Your task to perform on an android device: turn off wifi Image 0: 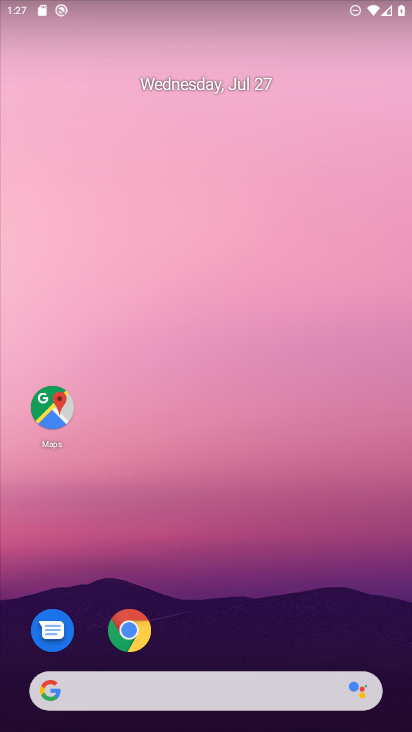
Step 0: drag from (306, 7) to (210, 382)
Your task to perform on an android device: turn off wifi Image 1: 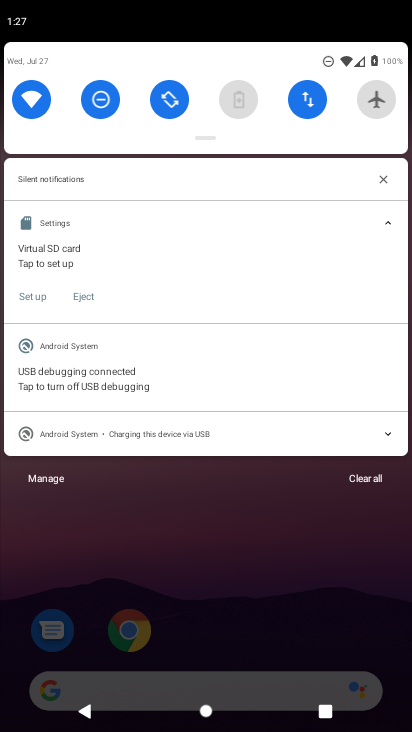
Step 1: click (22, 102)
Your task to perform on an android device: turn off wifi Image 2: 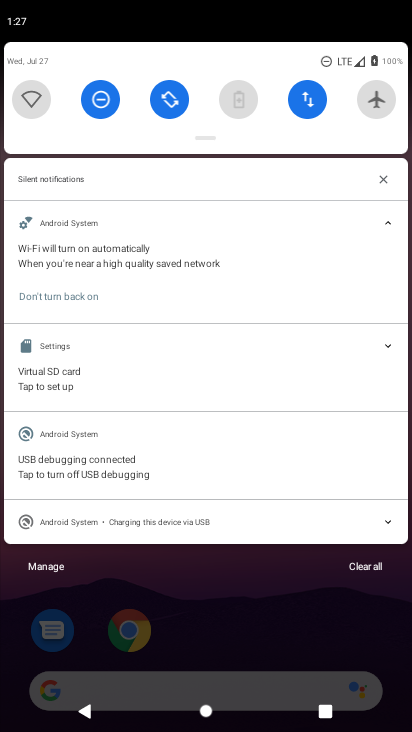
Step 2: task complete